Your task to perform on an android device: turn on the 12-hour format for clock Image 0: 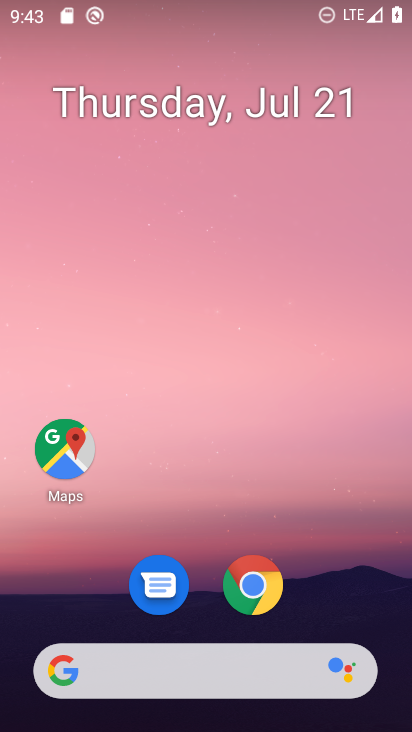
Step 0: drag from (321, 597) to (372, 75)
Your task to perform on an android device: turn on the 12-hour format for clock Image 1: 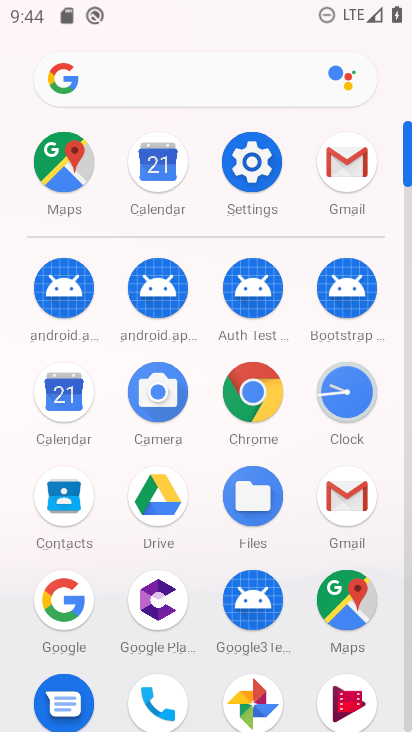
Step 1: click (356, 382)
Your task to perform on an android device: turn on the 12-hour format for clock Image 2: 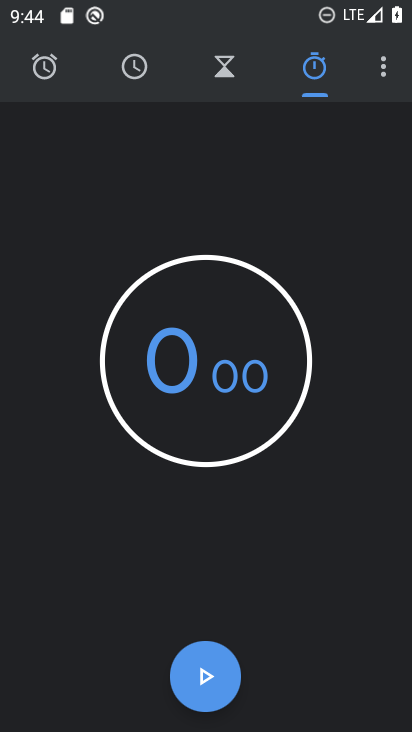
Step 2: click (385, 66)
Your task to perform on an android device: turn on the 12-hour format for clock Image 3: 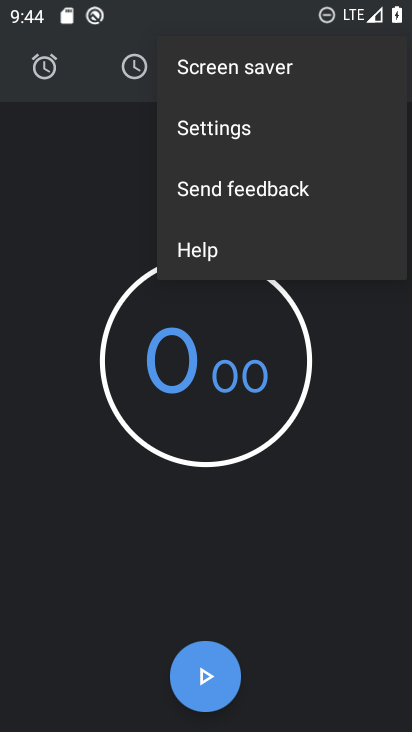
Step 3: click (245, 133)
Your task to perform on an android device: turn on the 12-hour format for clock Image 4: 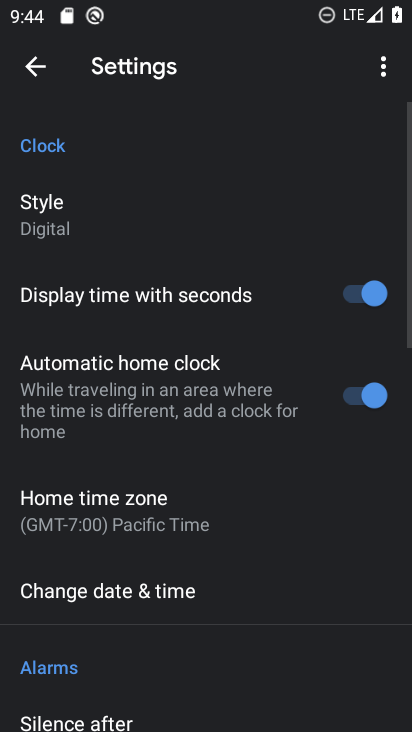
Step 4: drag from (201, 481) to (242, 87)
Your task to perform on an android device: turn on the 12-hour format for clock Image 5: 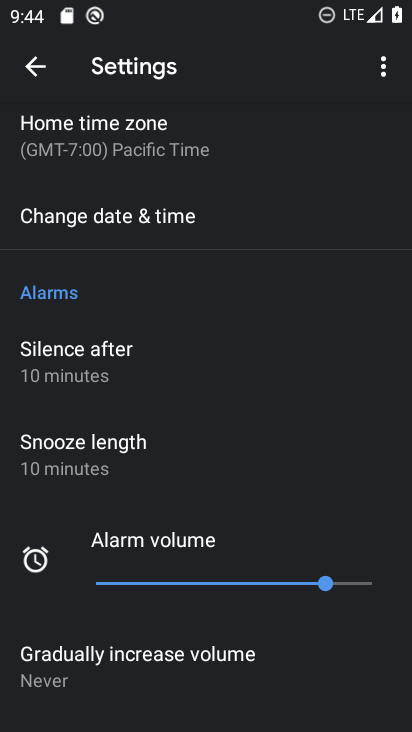
Step 5: drag from (191, 376) to (194, 334)
Your task to perform on an android device: turn on the 12-hour format for clock Image 6: 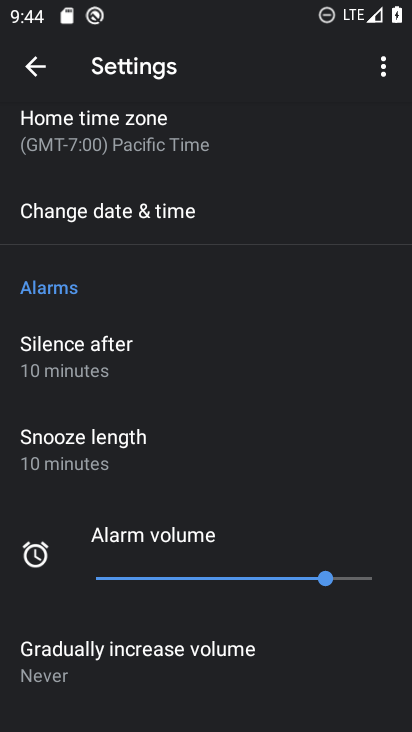
Step 6: click (211, 220)
Your task to perform on an android device: turn on the 12-hour format for clock Image 7: 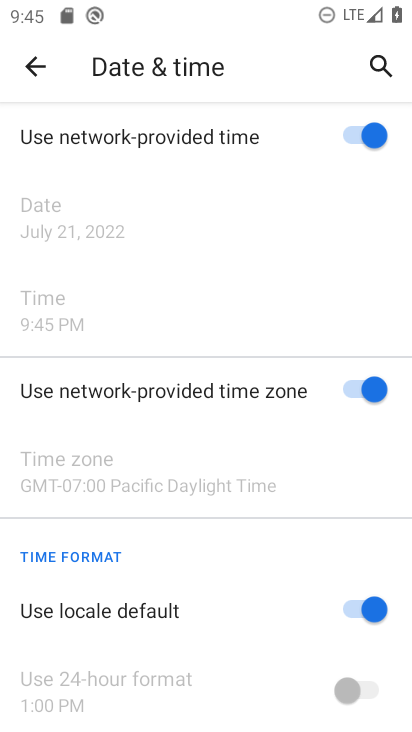
Step 7: task complete